Your task to perform on an android device: add a label to a message in the gmail app Image 0: 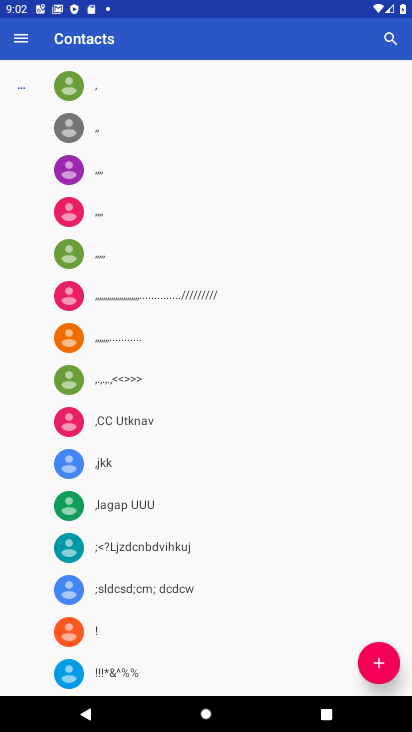
Step 0: press back button
Your task to perform on an android device: add a label to a message in the gmail app Image 1: 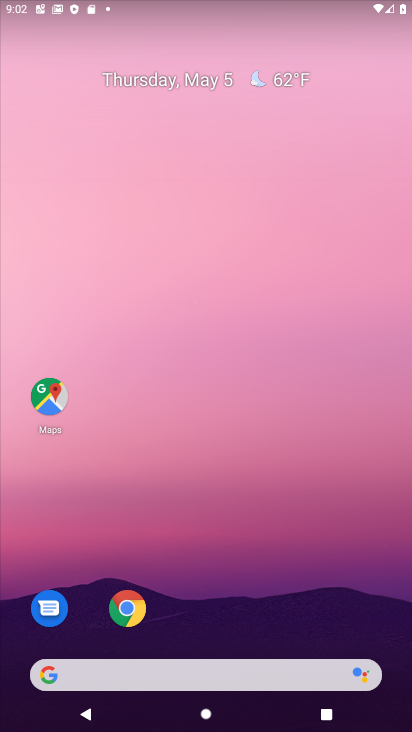
Step 1: drag from (309, 551) to (278, 41)
Your task to perform on an android device: add a label to a message in the gmail app Image 2: 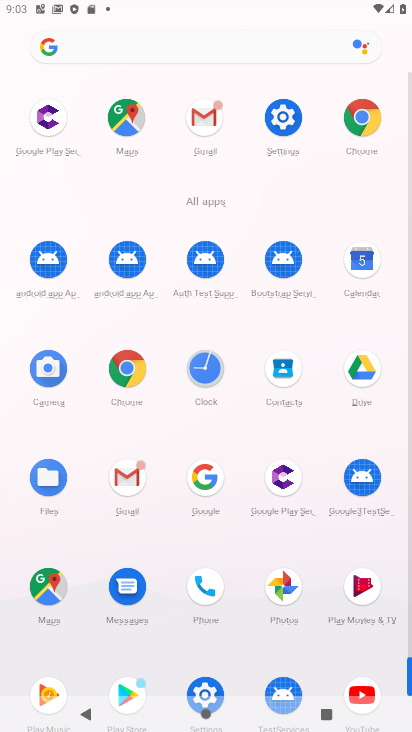
Step 2: drag from (4, 618) to (9, 380)
Your task to perform on an android device: add a label to a message in the gmail app Image 3: 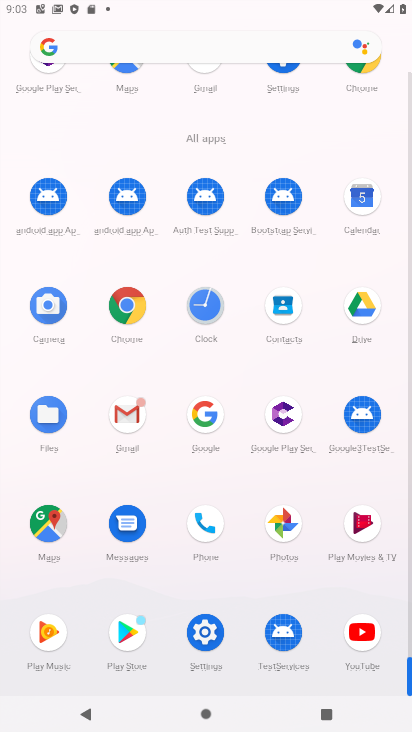
Step 3: click (125, 411)
Your task to perform on an android device: add a label to a message in the gmail app Image 4: 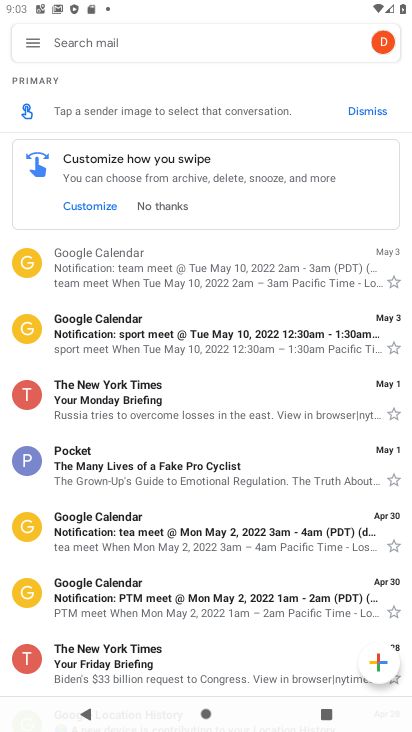
Step 4: click (27, 47)
Your task to perform on an android device: add a label to a message in the gmail app Image 5: 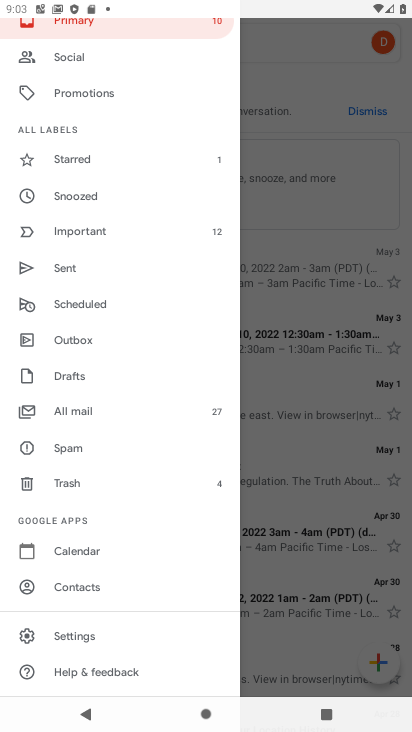
Step 5: drag from (119, 579) to (104, 138)
Your task to perform on an android device: add a label to a message in the gmail app Image 6: 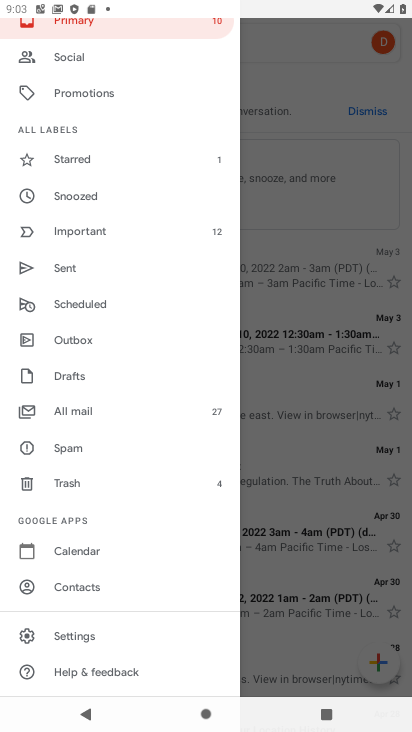
Step 6: drag from (184, 549) to (197, 157)
Your task to perform on an android device: add a label to a message in the gmail app Image 7: 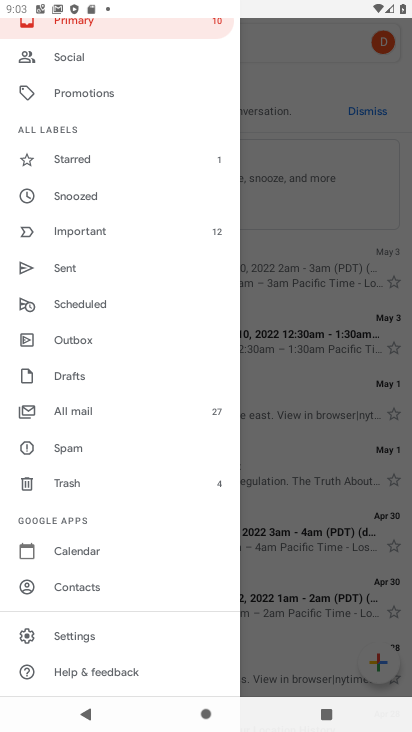
Step 7: drag from (150, 91) to (141, 518)
Your task to perform on an android device: add a label to a message in the gmail app Image 8: 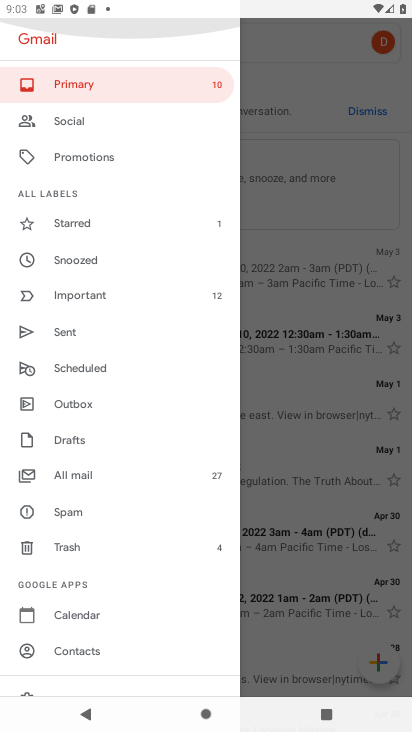
Step 8: drag from (135, 523) to (149, 157)
Your task to perform on an android device: add a label to a message in the gmail app Image 9: 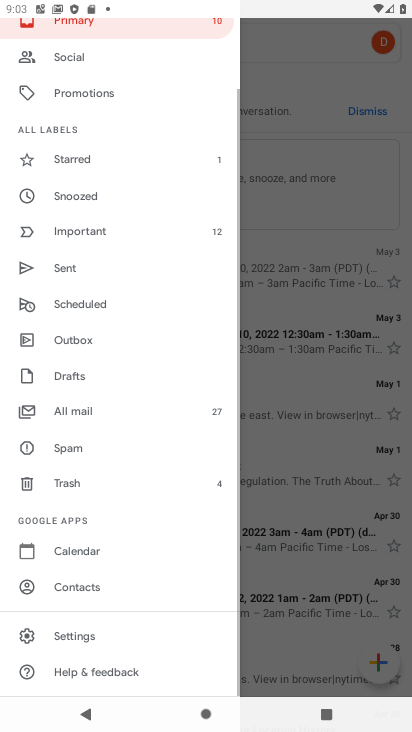
Step 9: click (75, 638)
Your task to perform on an android device: add a label to a message in the gmail app Image 10: 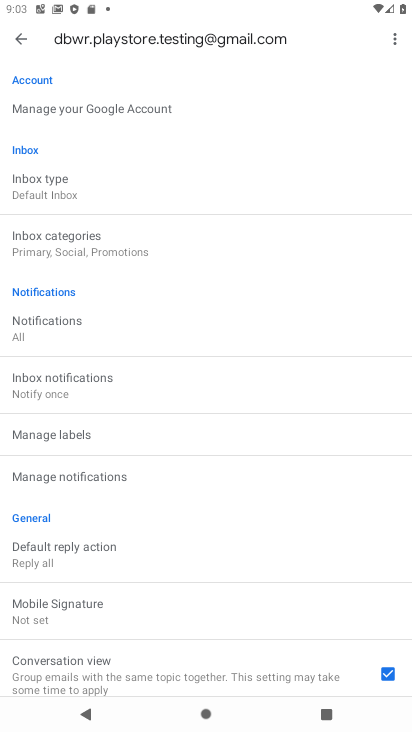
Step 10: click (77, 185)
Your task to perform on an android device: add a label to a message in the gmail app Image 11: 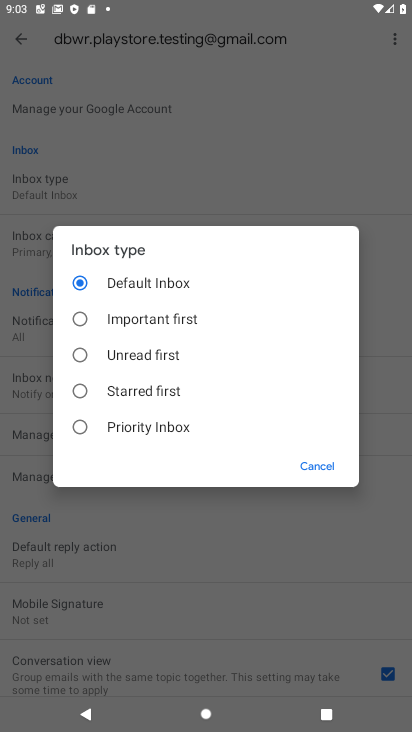
Step 11: click (96, 516)
Your task to perform on an android device: add a label to a message in the gmail app Image 12: 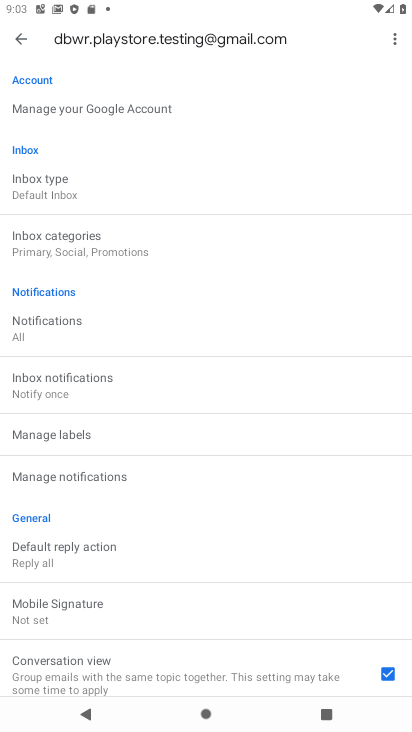
Step 12: click (20, 41)
Your task to perform on an android device: add a label to a message in the gmail app Image 13: 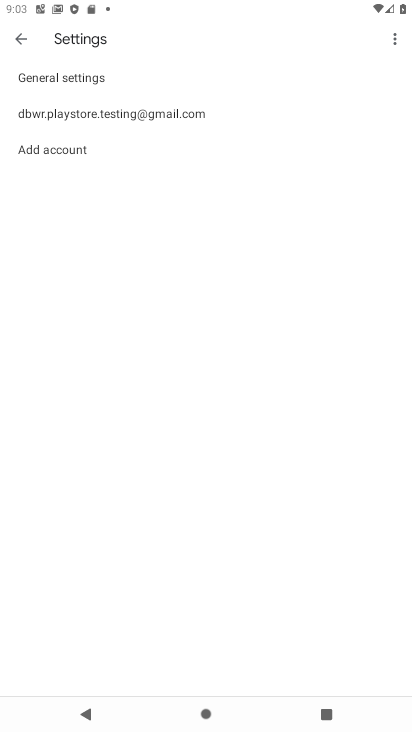
Step 13: click (20, 41)
Your task to perform on an android device: add a label to a message in the gmail app Image 14: 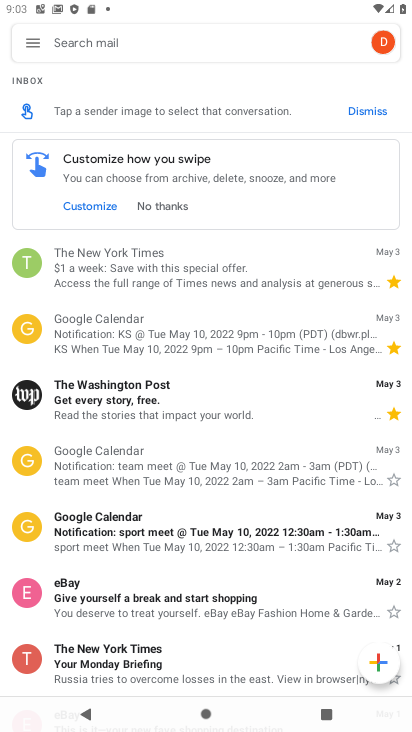
Step 14: click (173, 346)
Your task to perform on an android device: add a label to a message in the gmail app Image 15: 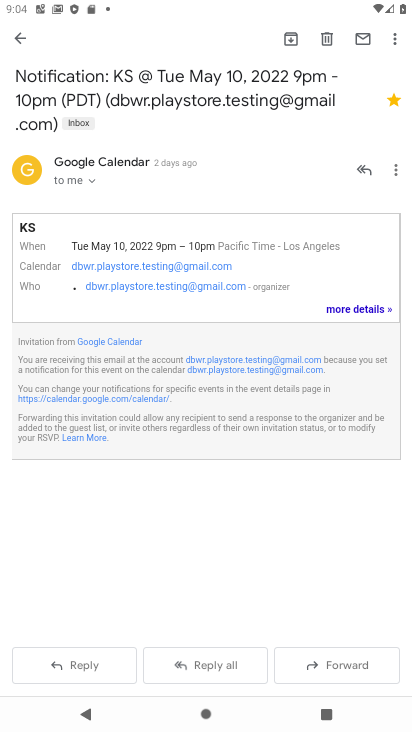
Step 15: click (392, 99)
Your task to perform on an android device: add a label to a message in the gmail app Image 16: 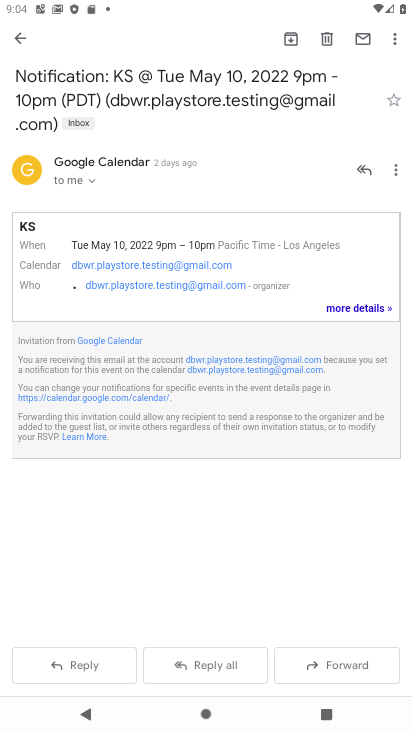
Step 16: task complete